Your task to perform on an android device: Open Android settings Image 0: 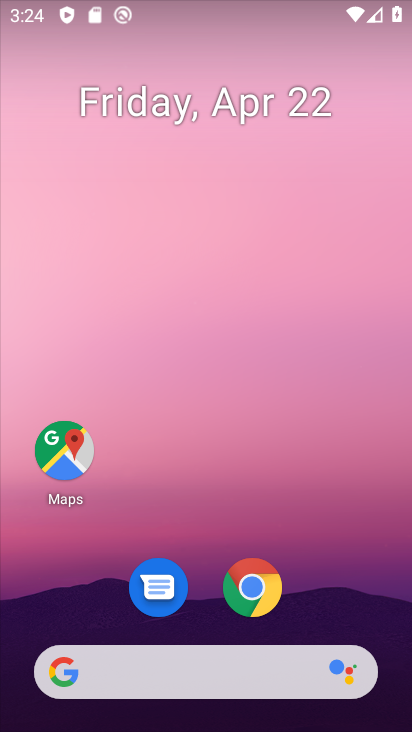
Step 0: drag from (210, 553) to (293, 90)
Your task to perform on an android device: Open Android settings Image 1: 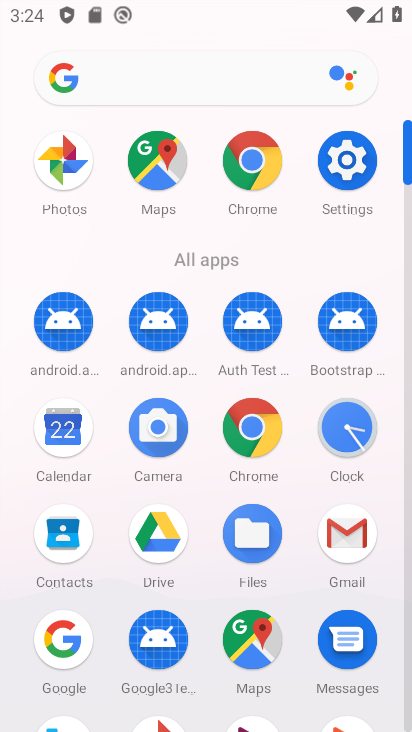
Step 1: click (349, 159)
Your task to perform on an android device: Open Android settings Image 2: 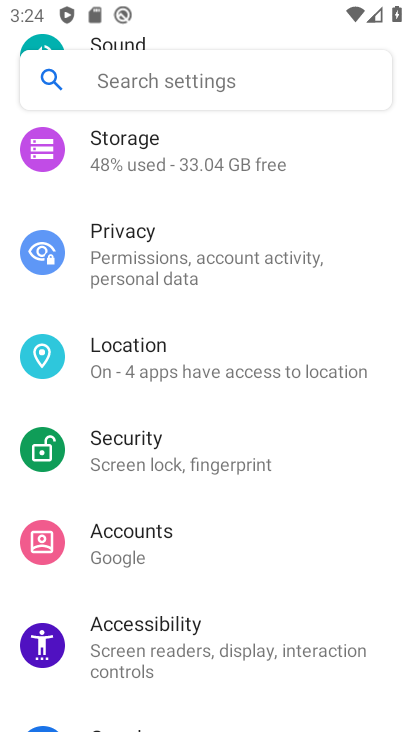
Step 2: task complete